Your task to perform on an android device: add a contact in the contacts app Image 0: 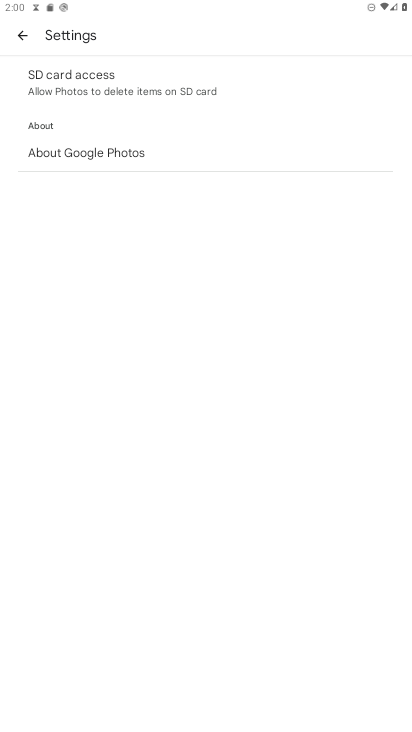
Step 0: press home button
Your task to perform on an android device: add a contact in the contacts app Image 1: 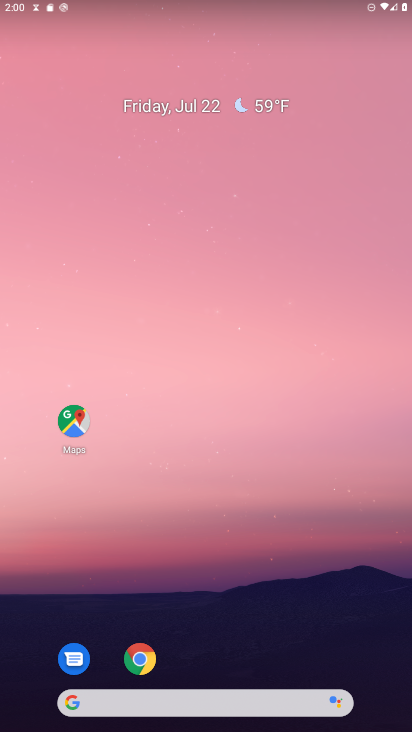
Step 1: drag from (334, 584) to (268, 0)
Your task to perform on an android device: add a contact in the contacts app Image 2: 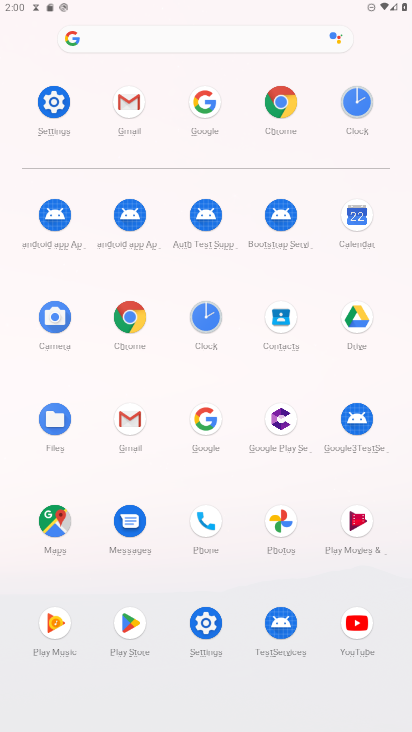
Step 2: click (209, 516)
Your task to perform on an android device: add a contact in the contacts app Image 3: 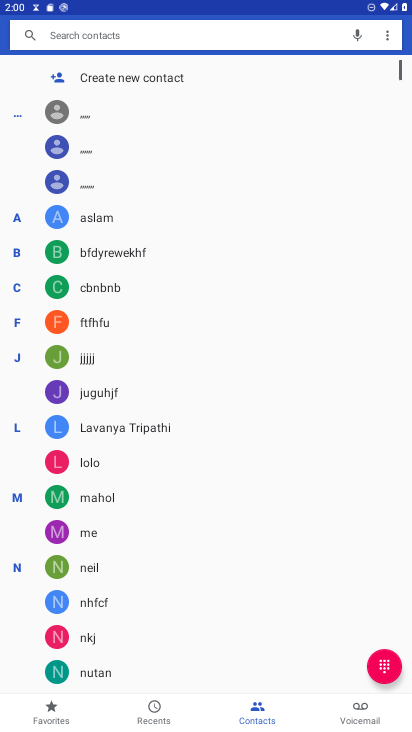
Step 3: click (98, 75)
Your task to perform on an android device: add a contact in the contacts app Image 4: 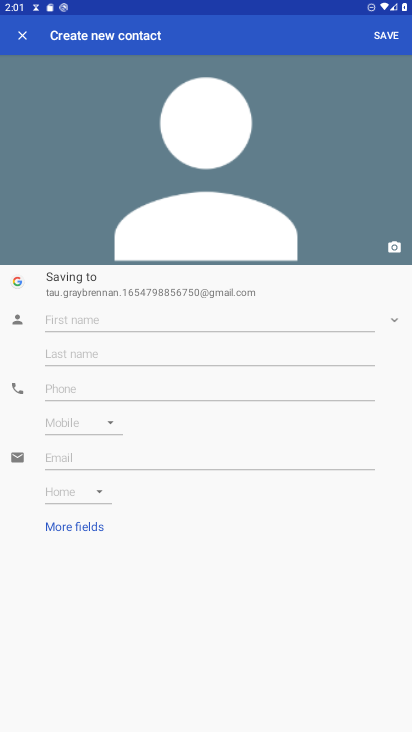
Step 4: type "ffhhhf"
Your task to perform on an android device: add a contact in the contacts app Image 5: 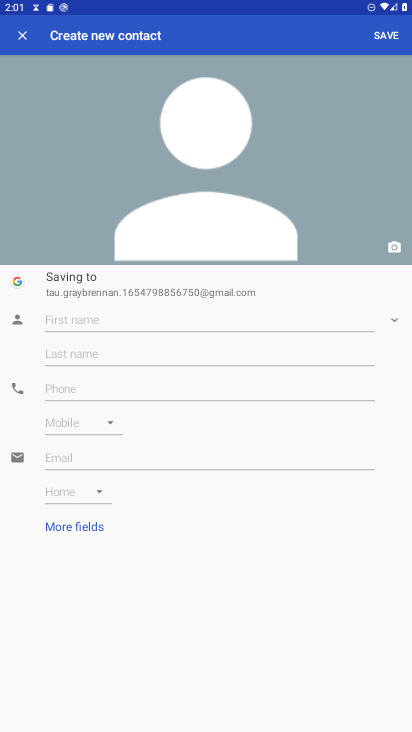
Step 5: click (245, 308)
Your task to perform on an android device: add a contact in the contacts app Image 6: 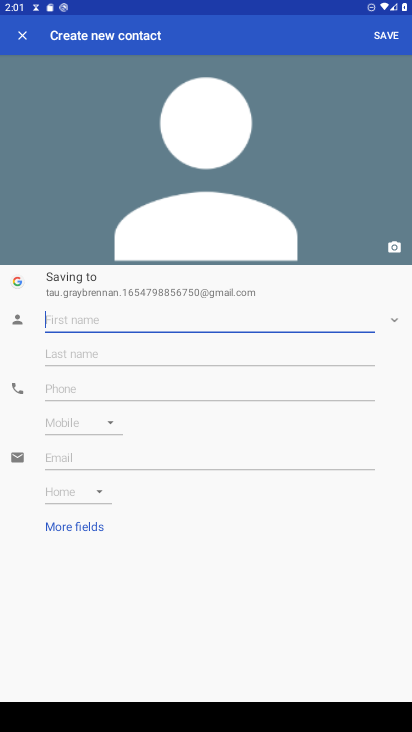
Step 6: type "fhfhhhf"
Your task to perform on an android device: add a contact in the contacts app Image 7: 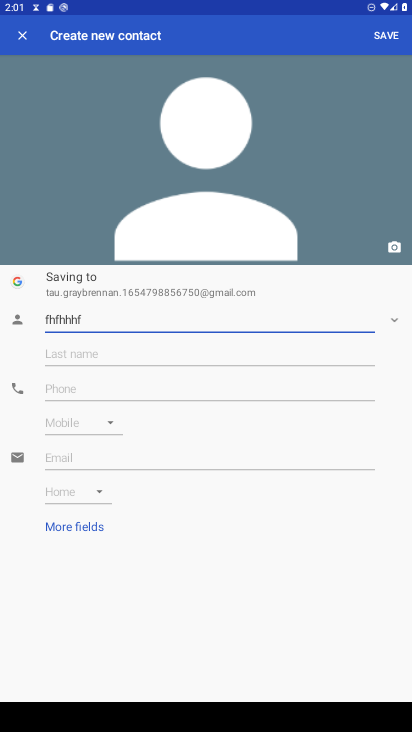
Step 7: click (86, 384)
Your task to perform on an android device: add a contact in the contacts app Image 8: 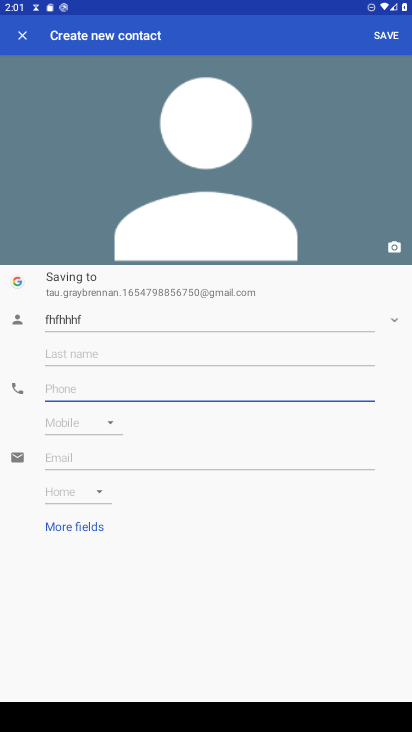
Step 8: type "56788765"
Your task to perform on an android device: add a contact in the contacts app Image 9: 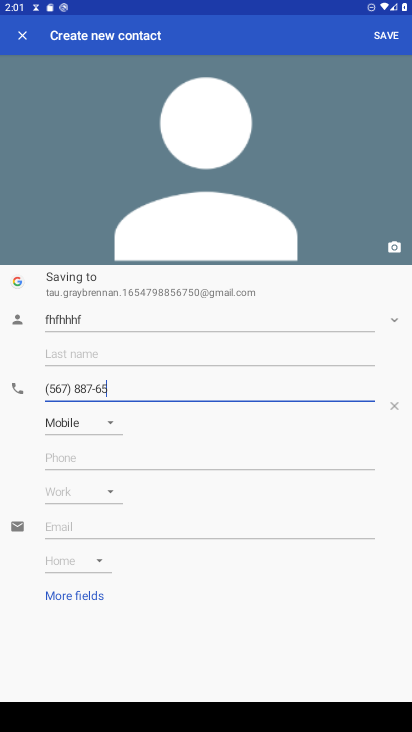
Step 9: click (385, 38)
Your task to perform on an android device: add a contact in the contacts app Image 10: 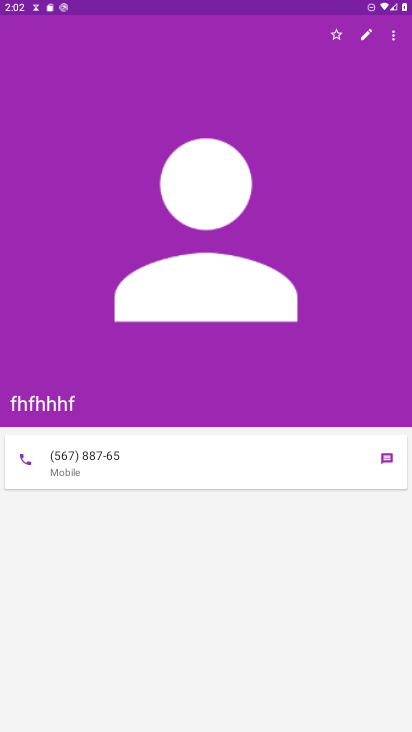
Step 10: task complete